Your task to perform on an android device: change text size in settings app Image 0: 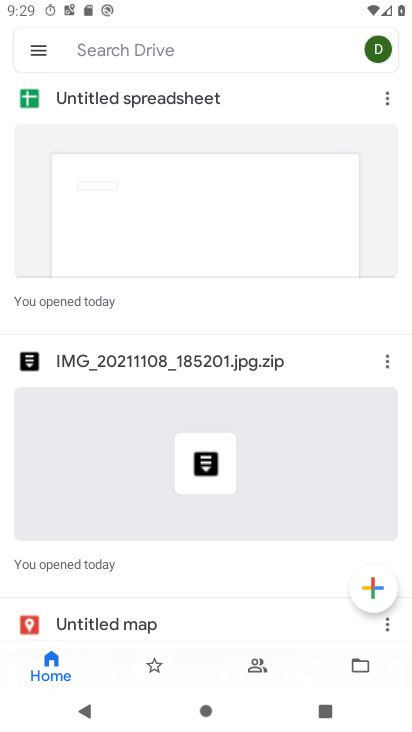
Step 0: press home button
Your task to perform on an android device: change text size in settings app Image 1: 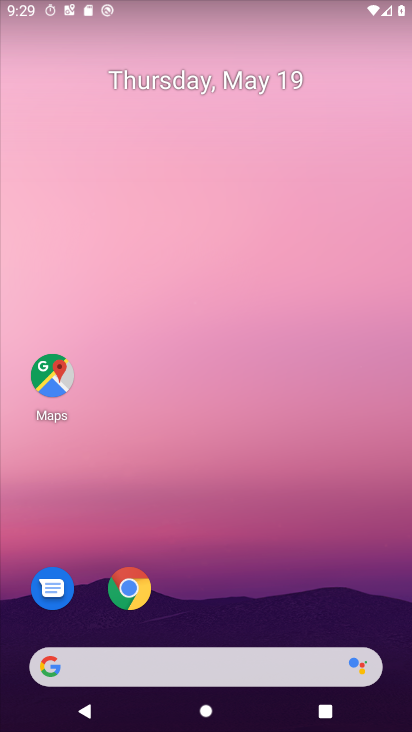
Step 1: drag from (145, 662) to (343, 59)
Your task to perform on an android device: change text size in settings app Image 2: 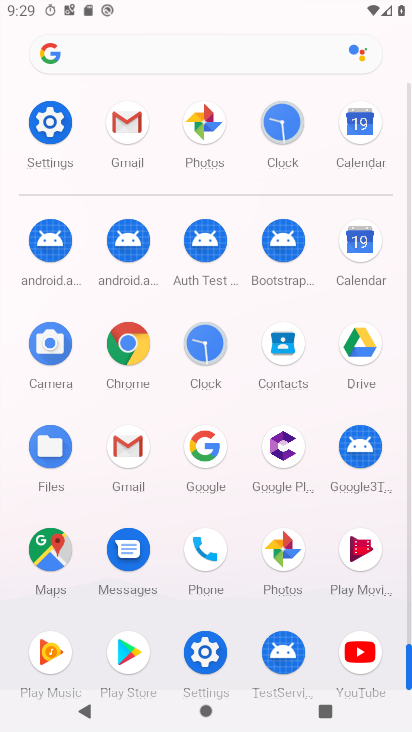
Step 2: click (49, 132)
Your task to perform on an android device: change text size in settings app Image 3: 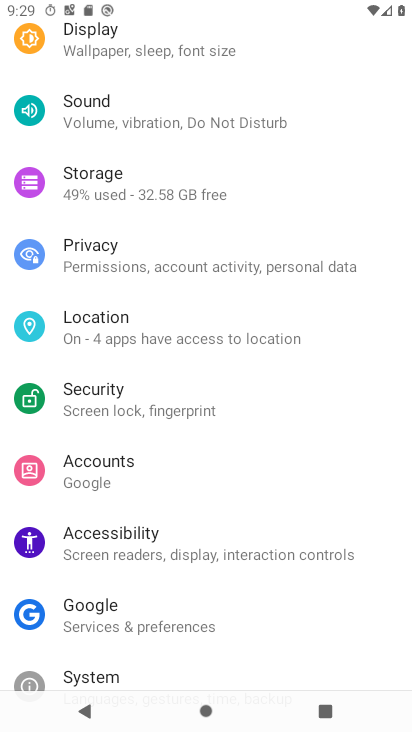
Step 3: click (185, 47)
Your task to perform on an android device: change text size in settings app Image 4: 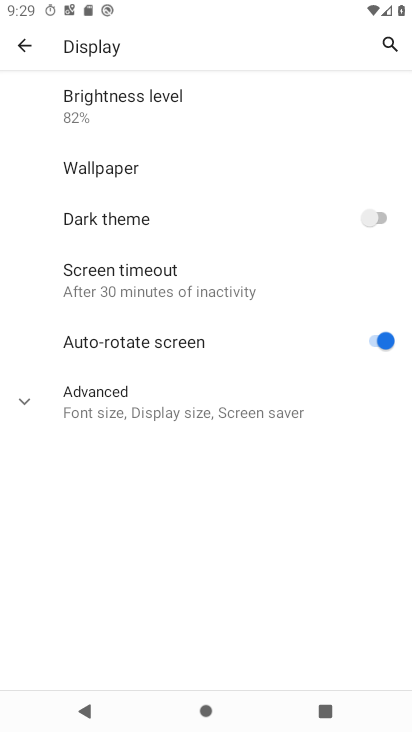
Step 4: click (130, 400)
Your task to perform on an android device: change text size in settings app Image 5: 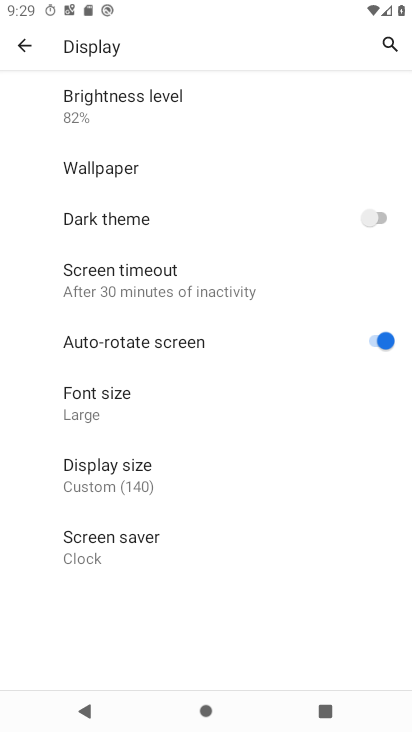
Step 5: click (112, 405)
Your task to perform on an android device: change text size in settings app Image 6: 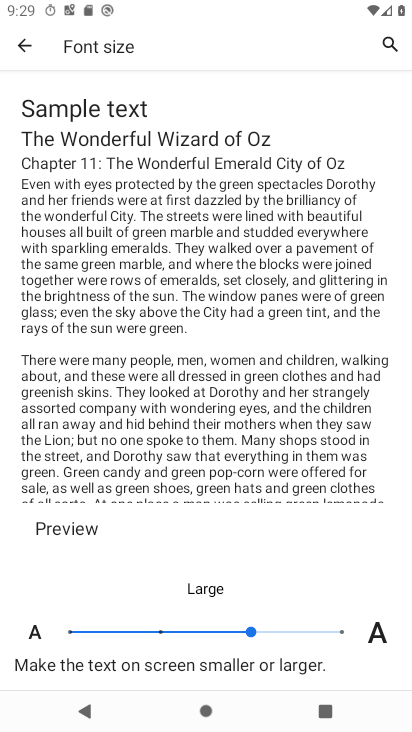
Step 6: click (159, 631)
Your task to perform on an android device: change text size in settings app Image 7: 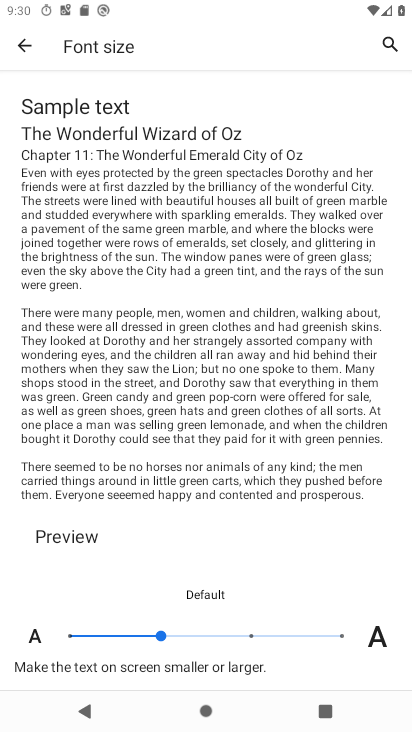
Step 7: task complete